Your task to perform on an android device: Open Chrome and go to settings Image 0: 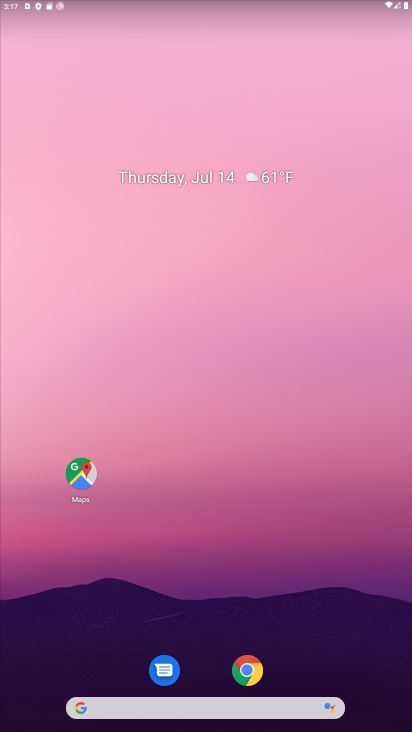
Step 0: click (249, 672)
Your task to perform on an android device: Open Chrome and go to settings Image 1: 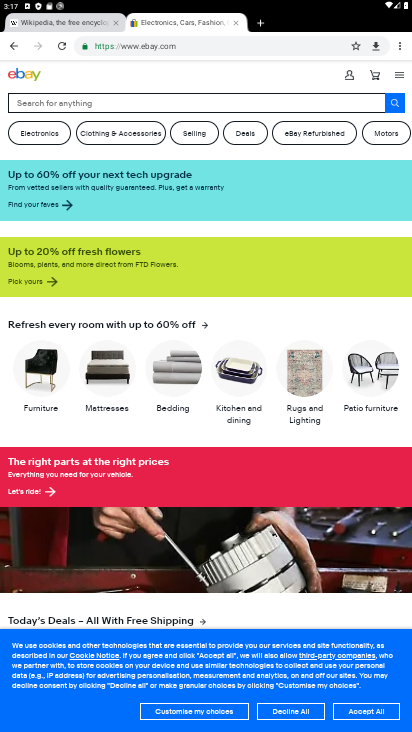
Step 1: click (394, 50)
Your task to perform on an android device: Open Chrome and go to settings Image 2: 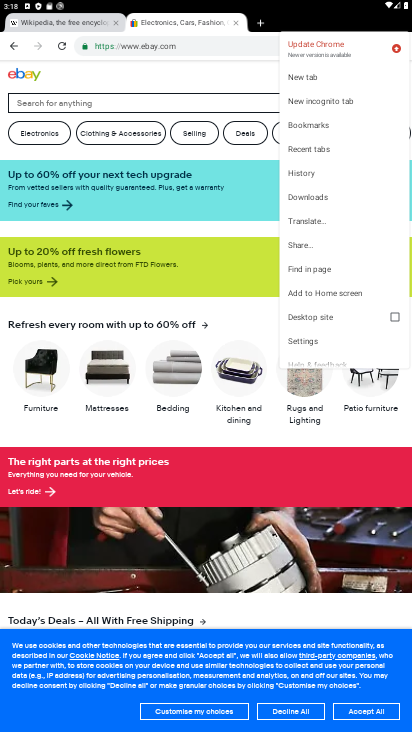
Step 2: click (316, 338)
Your task to perform on an android device: Open Chrome and go to settings Image 3: 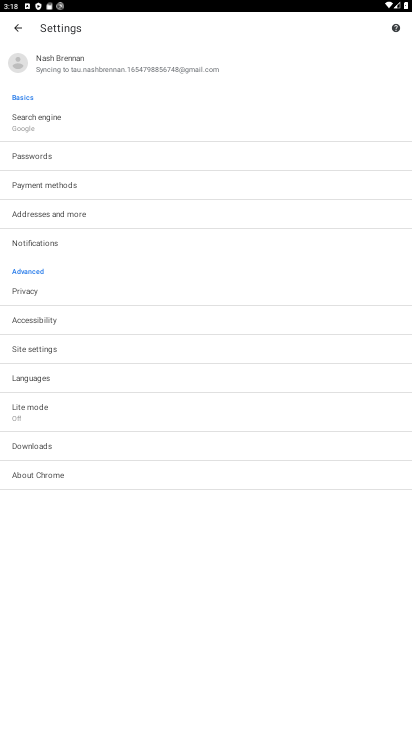
Step 3: task complete